Your task to perform on an android device: Open Google Chrome Image 0: 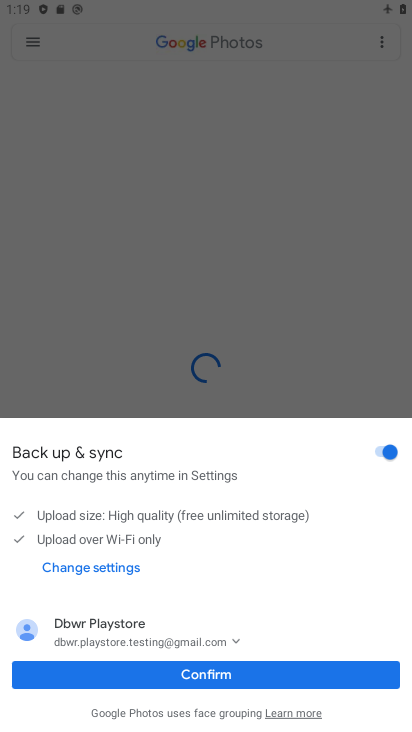
Step 0: press home button
Your task to perform on an android device: Open Google Chrome Image 1: 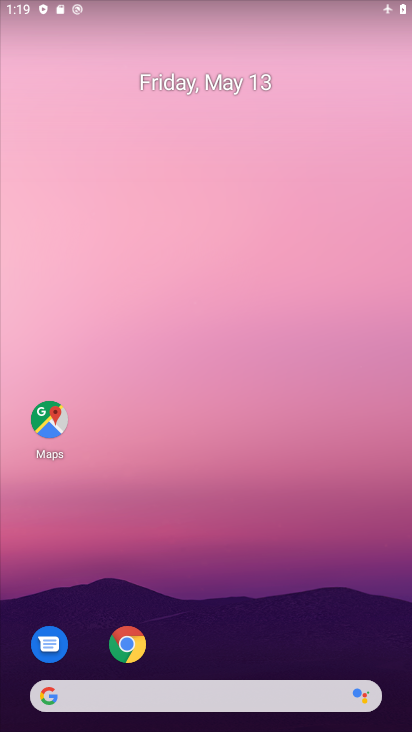
Step 1: click (128, 639)
Your task to perform on an android device: Open Google Chrome Image 2: 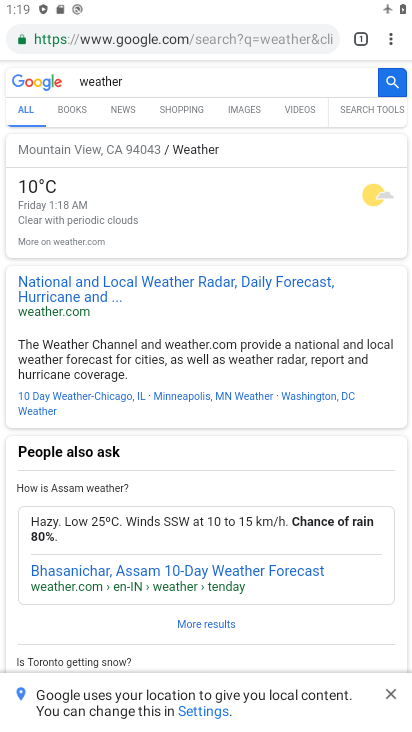
Step 2: task complete